Your task to perform on an android device: When is my next meeting? Image 0: 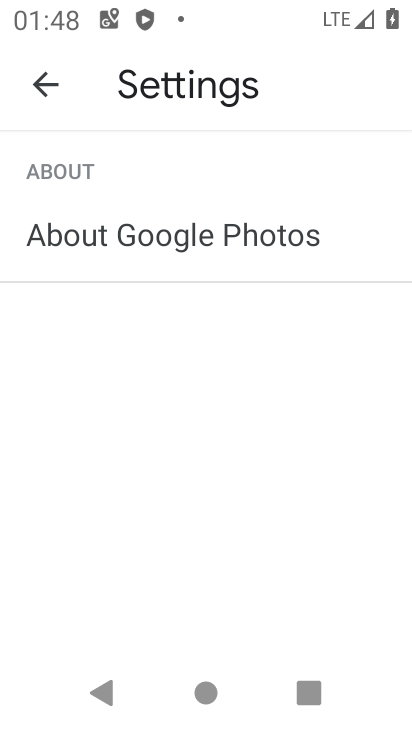
Step 0: press home button
Your task to perform on an android device: When is my next meeting? Image 1: 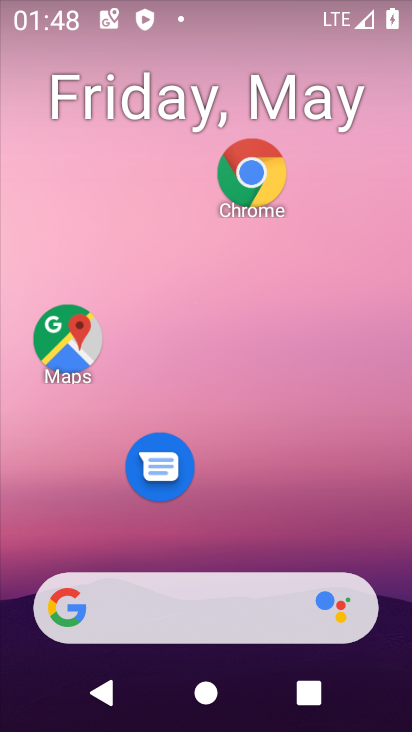
Step 1: drag from (214, 636) to (213, 189)
Your task to perform on an android device: When is my next meeting? Image 2: 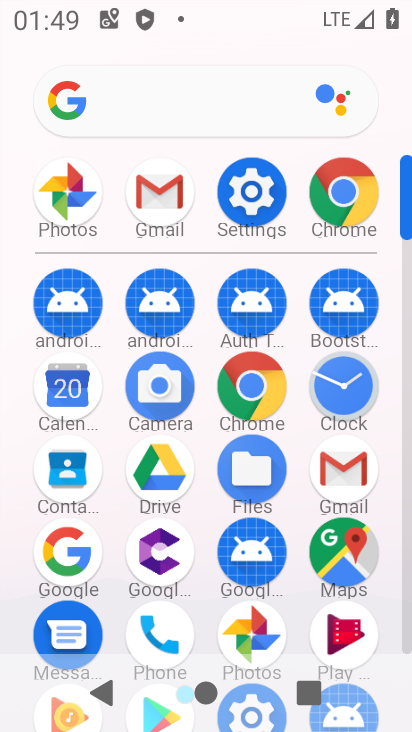
Step 2: click (68, 381)
Your task to perform on an android device: When is my next meeting? Image 3: 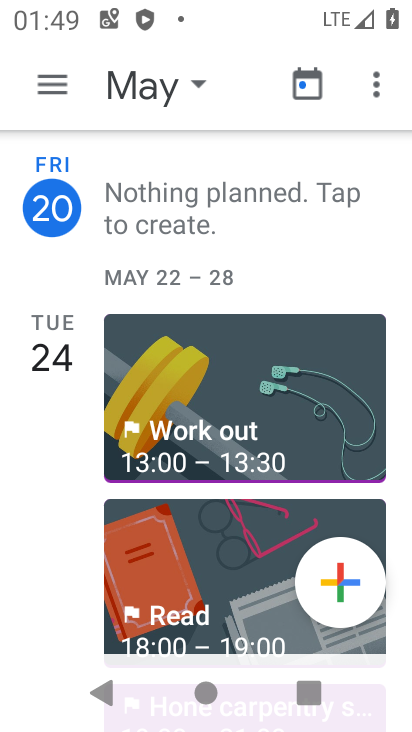
Step 3: task complete